Your task to perform on an android device: Turn on the flashlight Image 0: 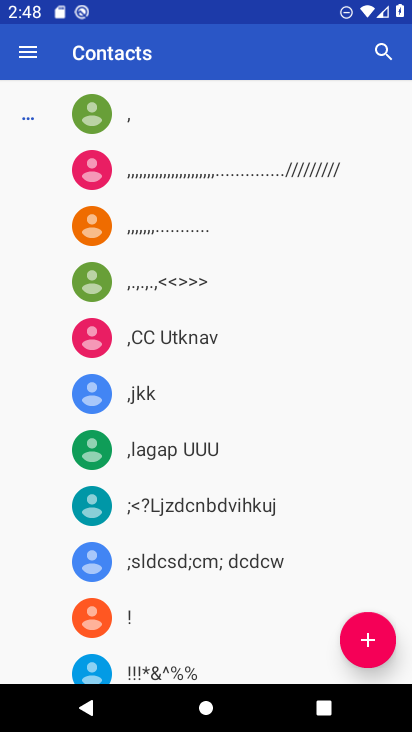
Step 0: drag from (270, 54) to (254, 542)
Your task to perform on an android device: Turn on the flashlight Image 1: 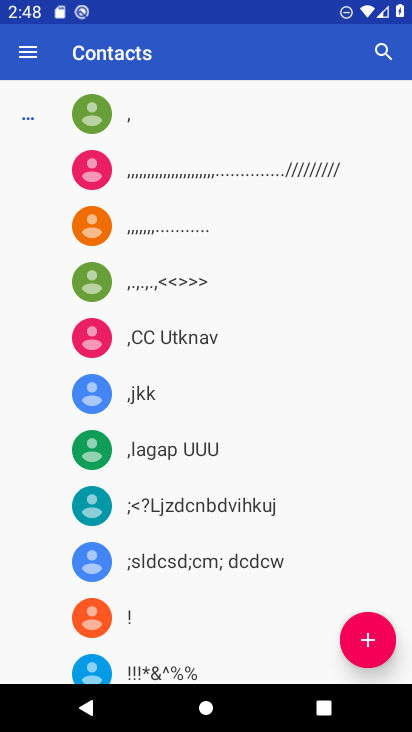
Step 1: task complete